Your task to perform on an android device: turn on the 24-hour format for clock Image 0: 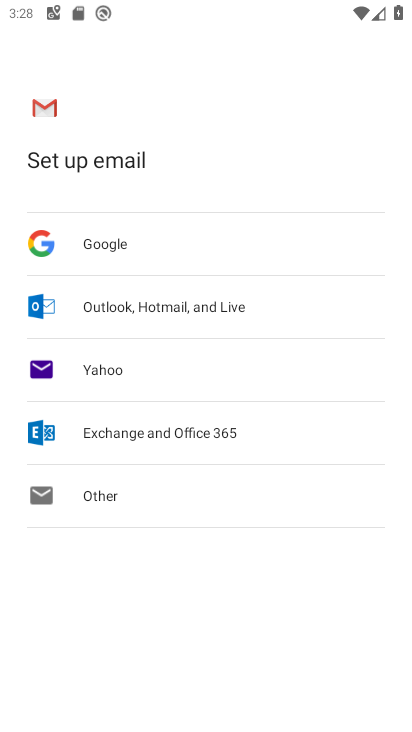
Step 0: press home button
Your task to perform on an android device: turn on the 24-hour format for clock Image 1: 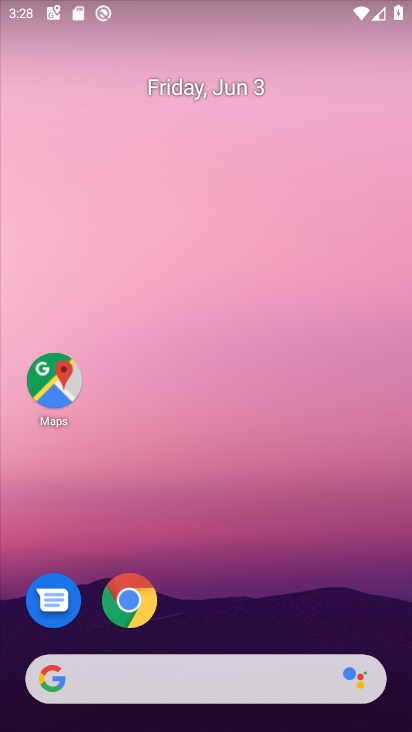
Step 1: drag from (258, 537) to (292, 144)
Your task to perform on an android device: turn on the 24-hour format for clock Image 2: 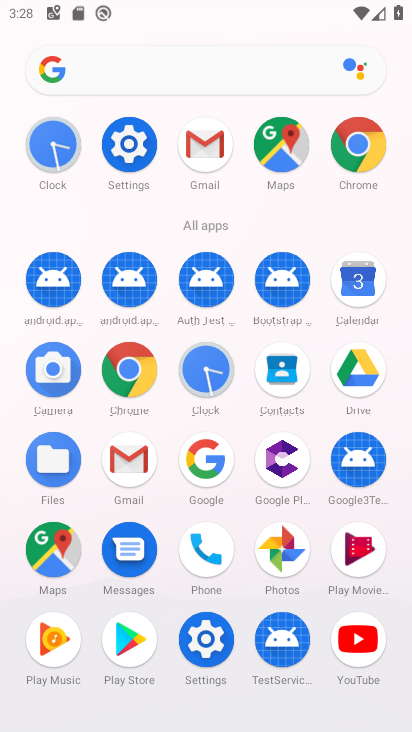
Step 2: click (221, 355)
Your task to perform on an android device: turn on the 24-hour format for clock Image 3: 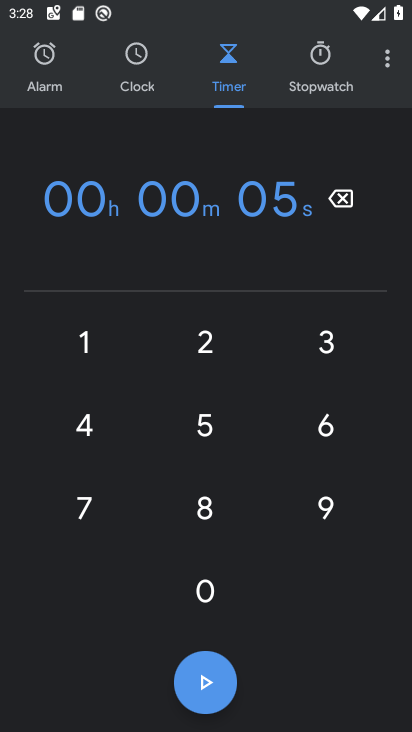
Step 3: drag from (390, 59) to (269, 117)
Your task to perform on an android device: turn on the 24-hour format for clock Image 4: 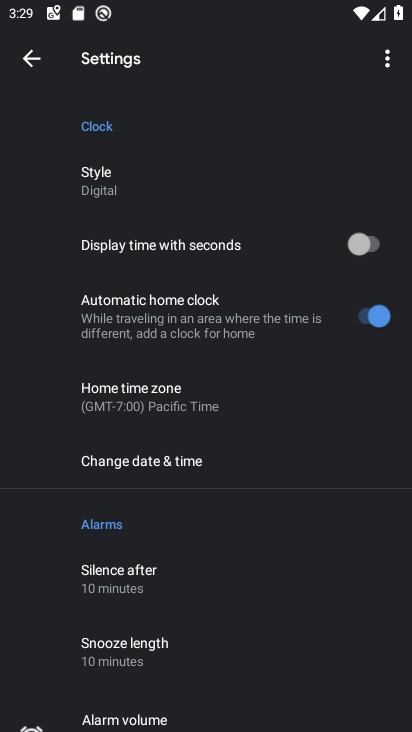
Step 4: click (177, 466)
Your task to perform on an android device: turn on the 24-hour format for clock Image 5: 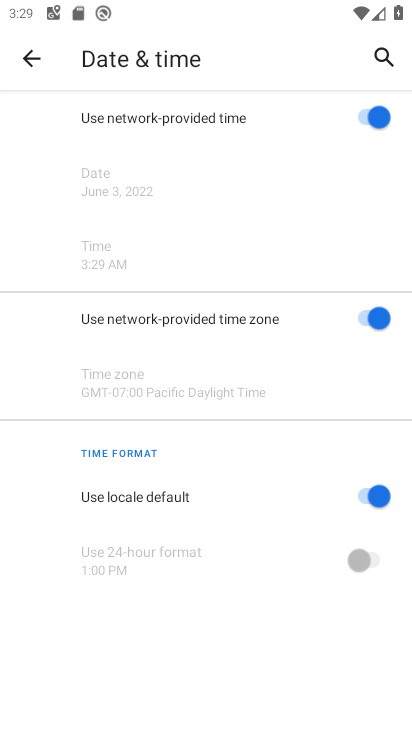
Step 5: click (381, 503)
Your task to perform on an android device: turn on the 24-hour format for clock Image 6: 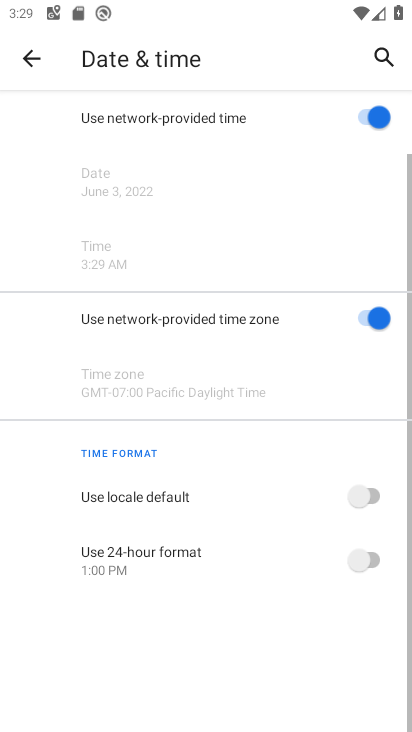
Step 6: click (376, 576)
Your task to perform on an android device: turn on the 24-hour format for clock Image 7: 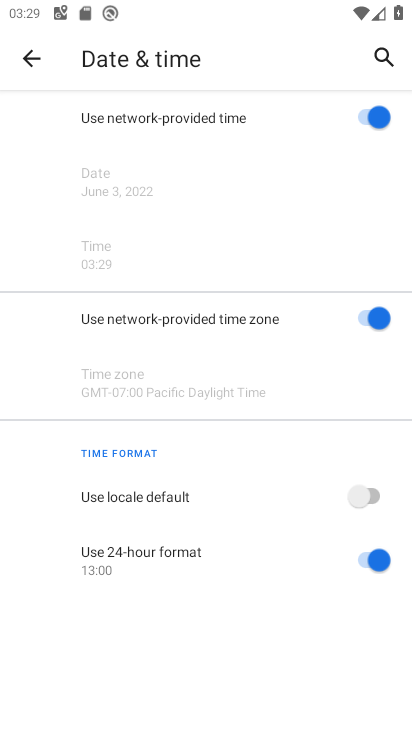
Step 7: task complete